Your task to perform on an android device: turn off location history Image 0: 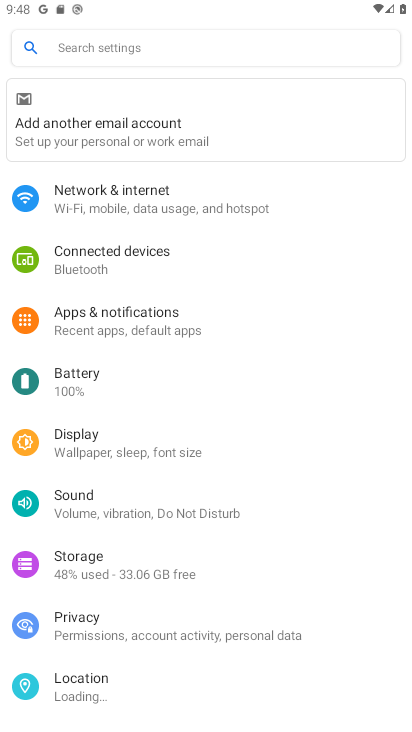
Step 0: drag from (187, 556) to (259, 195)
Your task to perform on an android device: turn off location history Image 1: 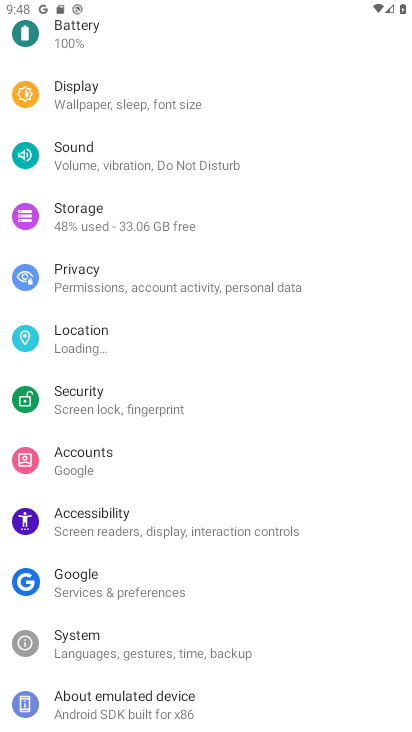
Step 1: click (125, 345)
Your task to perform on an android device: turn off location history Image 2: 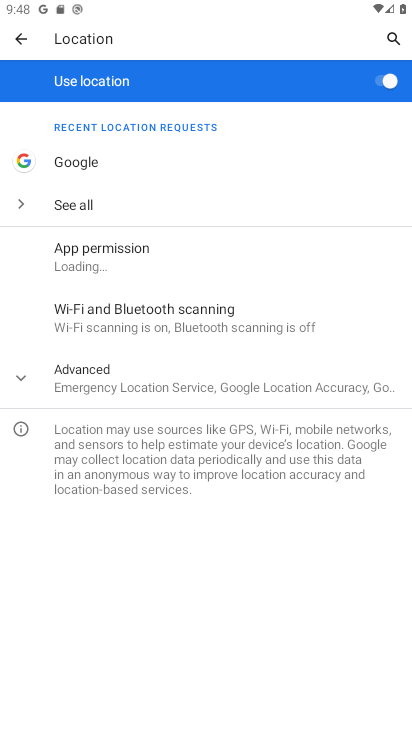
Step 2: click (162, 373)
Your task to perform on an android device: turn off location history Image 3: 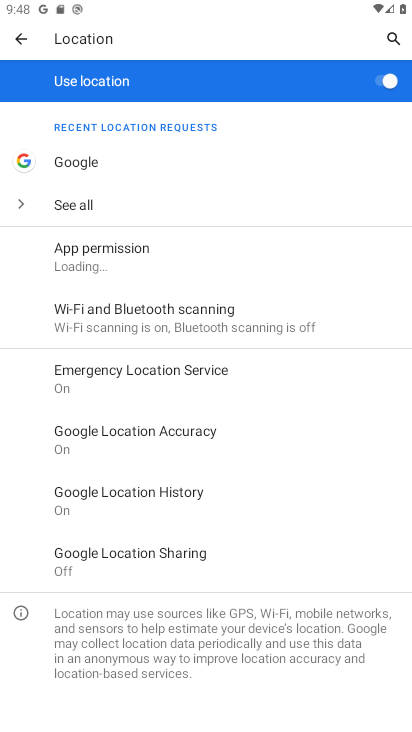
Step 3: click (168, 511)
Your task to perform on an android device: turn off location history Image 4: 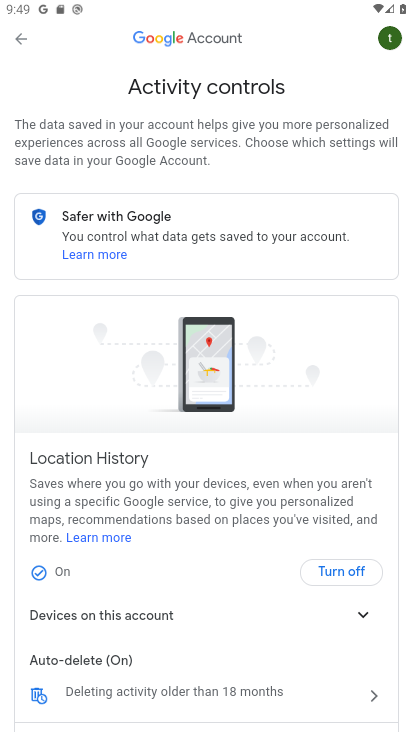
Step 4: click (338, 567)
Your task to perform on an android device: turn off location history Image 5: 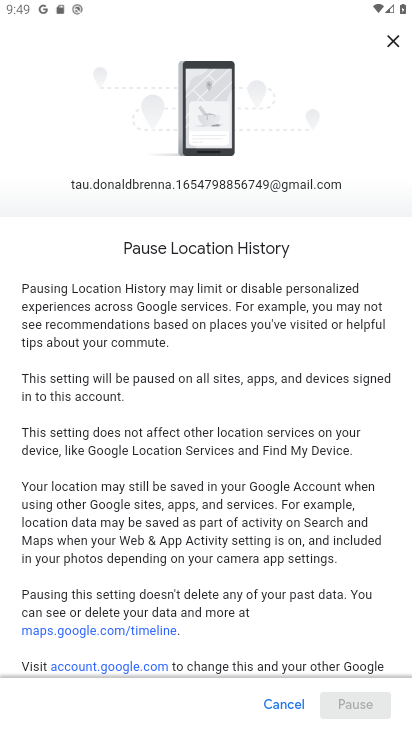
Step 5: drag from (293, 674) to (397, 261)
Your task to perform on an android device: turn off location history Image 6: 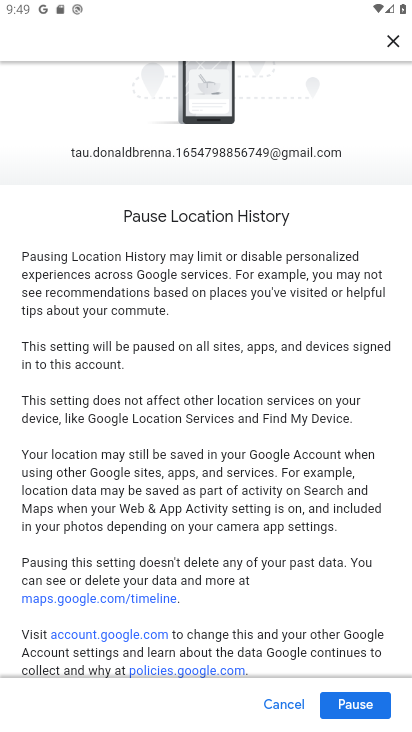
Step 6: click (345, 710)
Your task to perform on an android device: turn off location history Image 7: 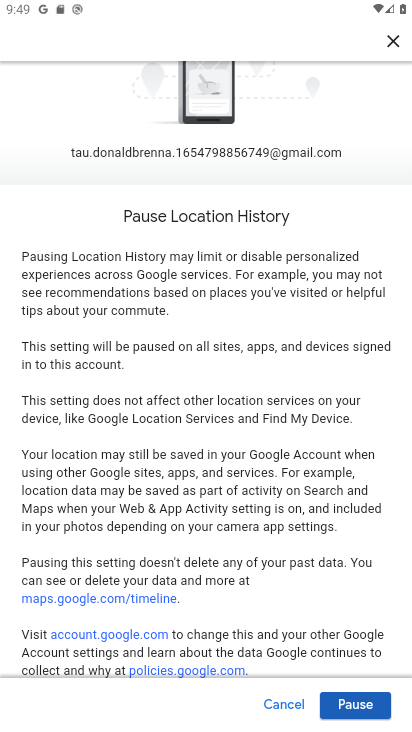
Step 7: click (364, 701)
Your task to perform on an android device: turn off location history Image 8: 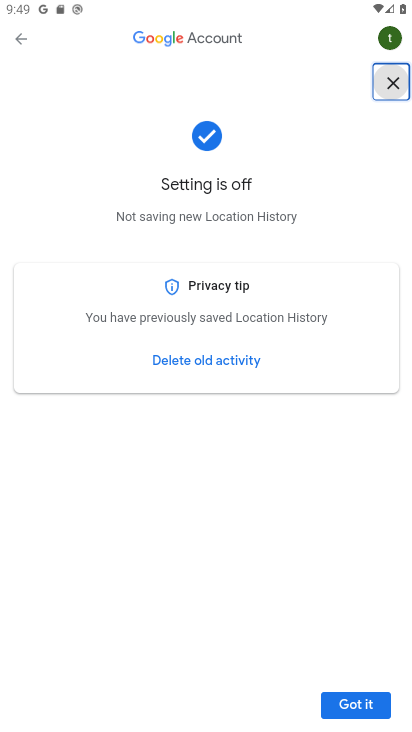
Step 8: click (366, 701)
Your task to perform on an android device: turn off location history Image 9: 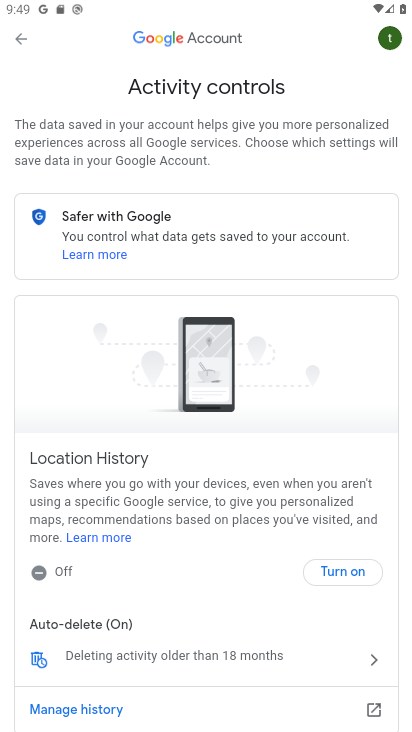
Step 9: task complete